Your task to perform on an android device: find which apps use the phone's location Image 0: 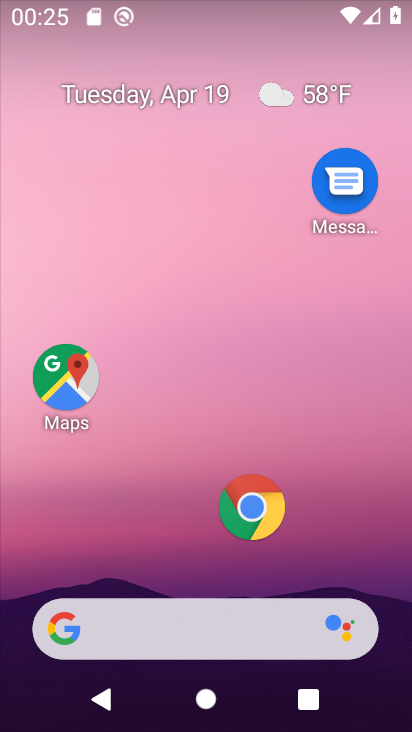
Step 0: drag from (157, 553) to (313, 3)
Your task to perform on an android device: find which apps use the phone's location Image 1: 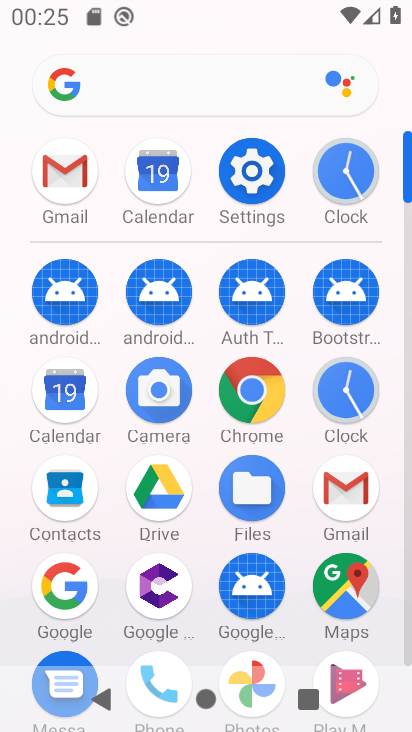
Step 1: click (257, 190)
Your task to perform on an android device: find which apps use the phone's location Image 2: 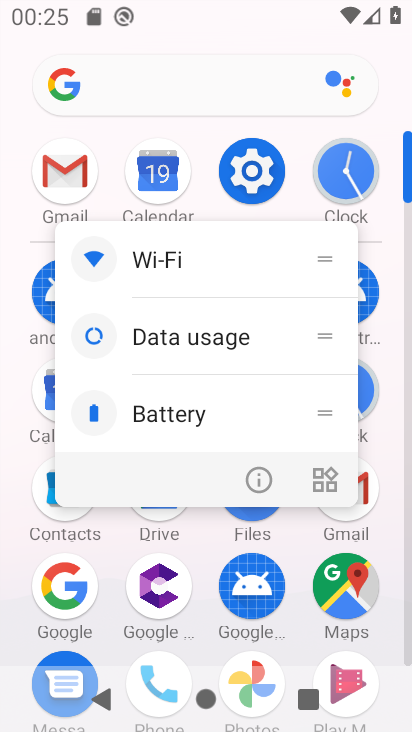
Step 2: click (249, 170)
Your task to perform on an android device: find which apps use the phone's location Image 3: 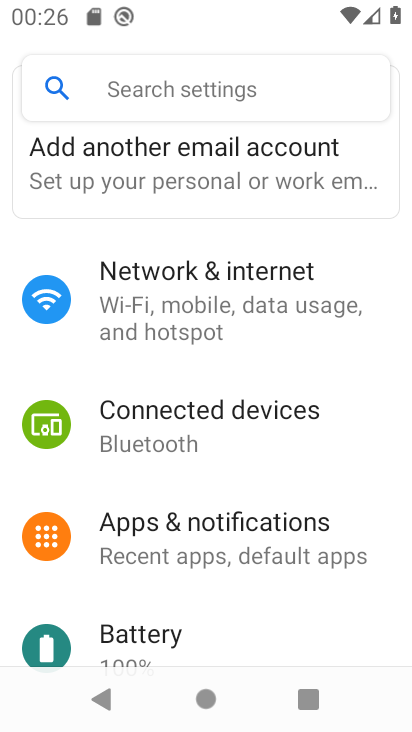
Step 3: drag from (184, 553) to (333, 157)
Your task to perform on an android device: find which apps use the phone's location Image 4: 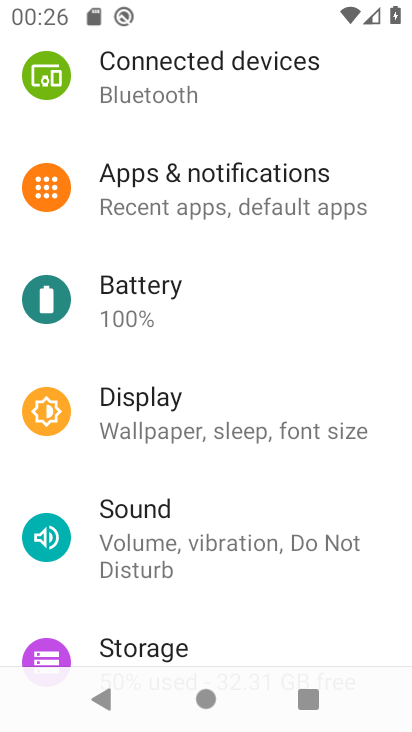
Step 4: drag from (170, 515) to (233, 217)
Your task to perform on an android device: find which apps use the phone's location Image 5: 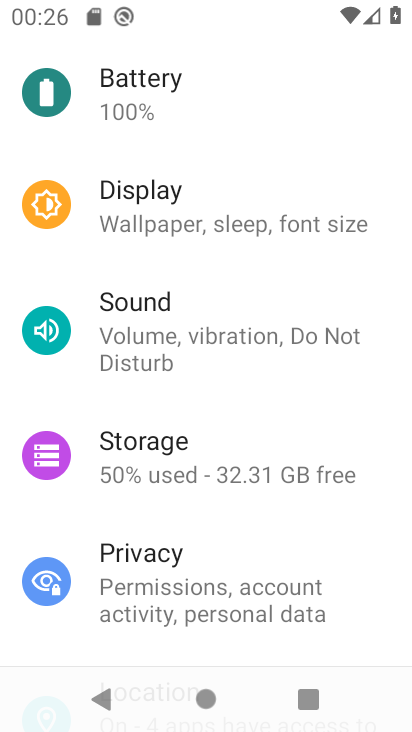
Step 5: drag from (104, 564) to (205, 142)
Your task to perform on an android device: find which apps use the phone's location Image 6: 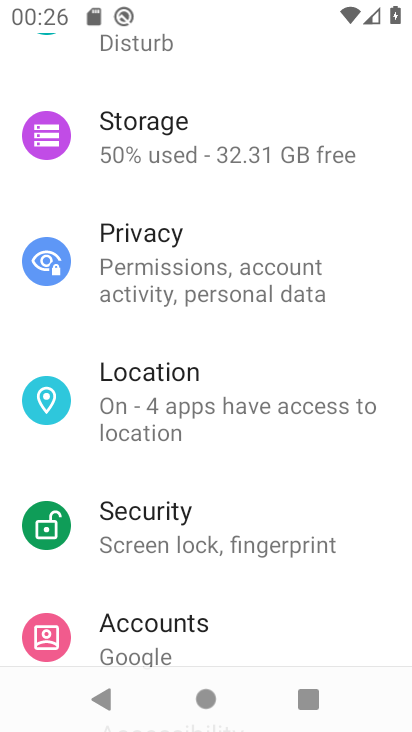
Step 6: click (161, 404)
Your task to perform on an android device: find which apps use the phone's location Image 7: 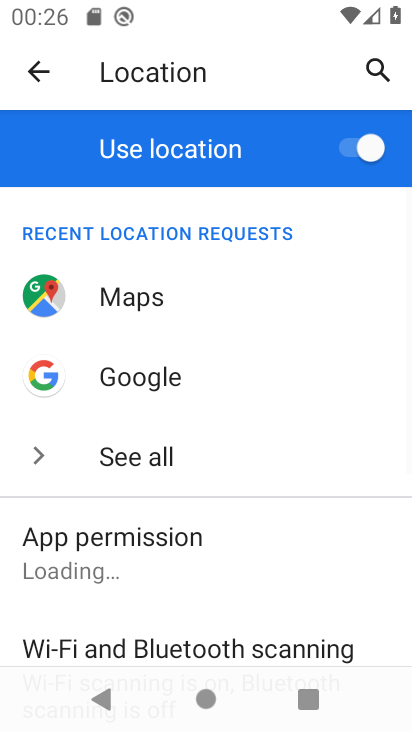
Step 7: click (98, 564)
Your task to perform on an android device: find which apps use the phone's location Image 8: 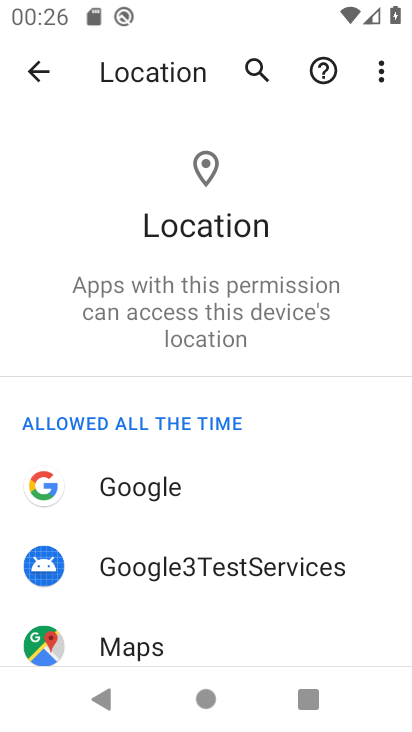
Step 8: task complete